Your task to perform on an android device: turn vacation reply on in the gmail app Image 0: 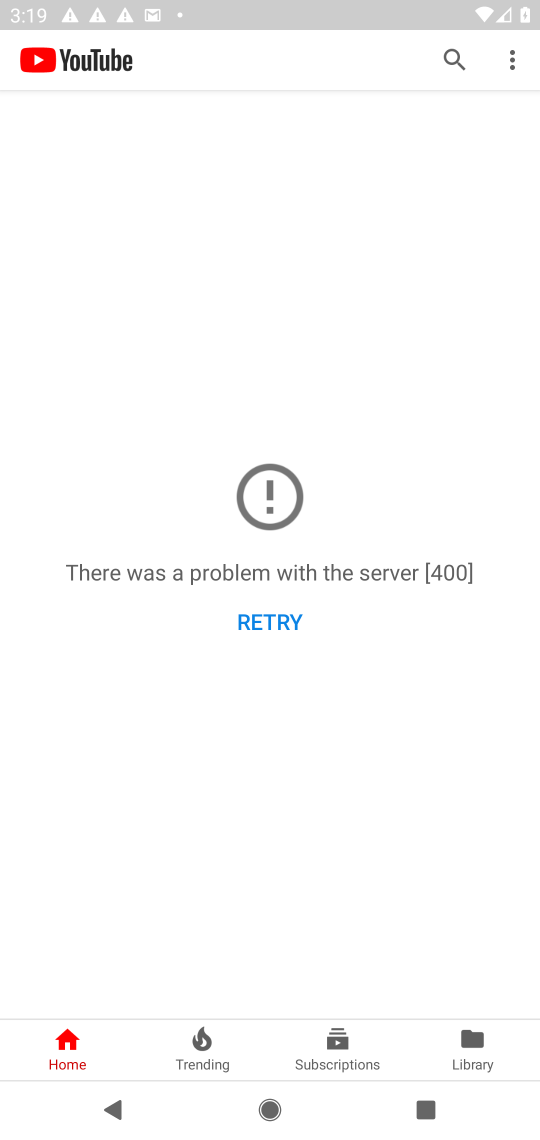
Step 0: press home button
Your task to perform on an android device: turn vacation reply on in the gmail app Image 1: 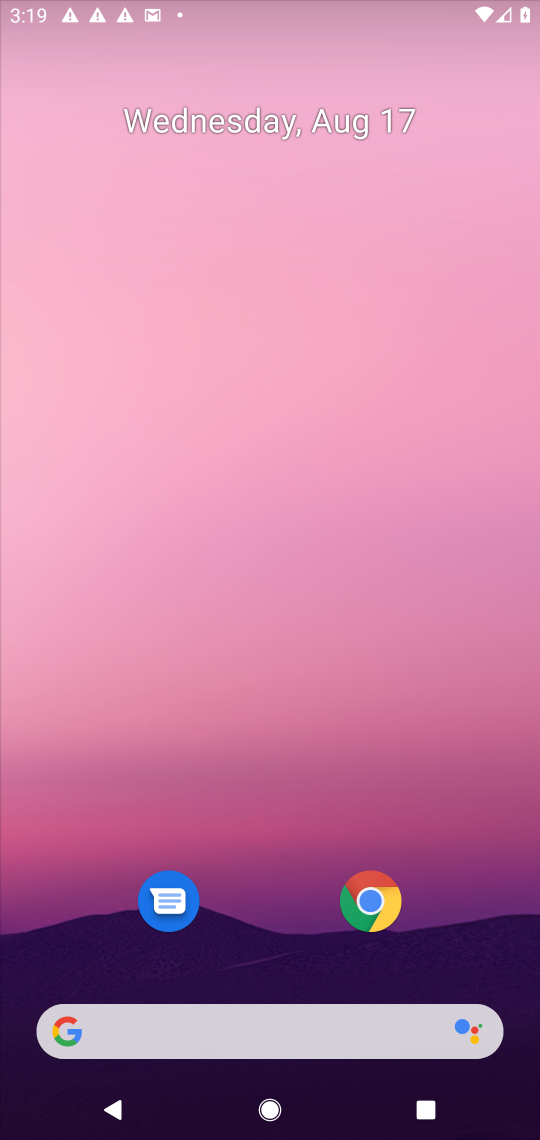
Step 1: drag from (227, 957) to (318, 449)
Your task to perform on an android device: turn vacation reply on in the gmail app Image 2: 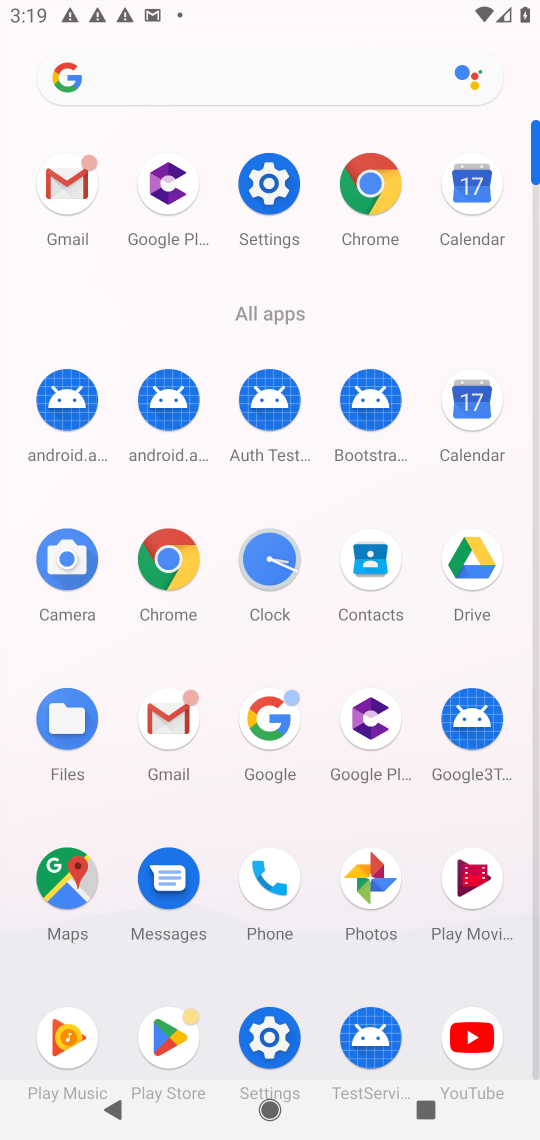
Step 2: click (170, 714)
Your task to perform on an android device: turn vacation reply on in the gmail app Image 3: 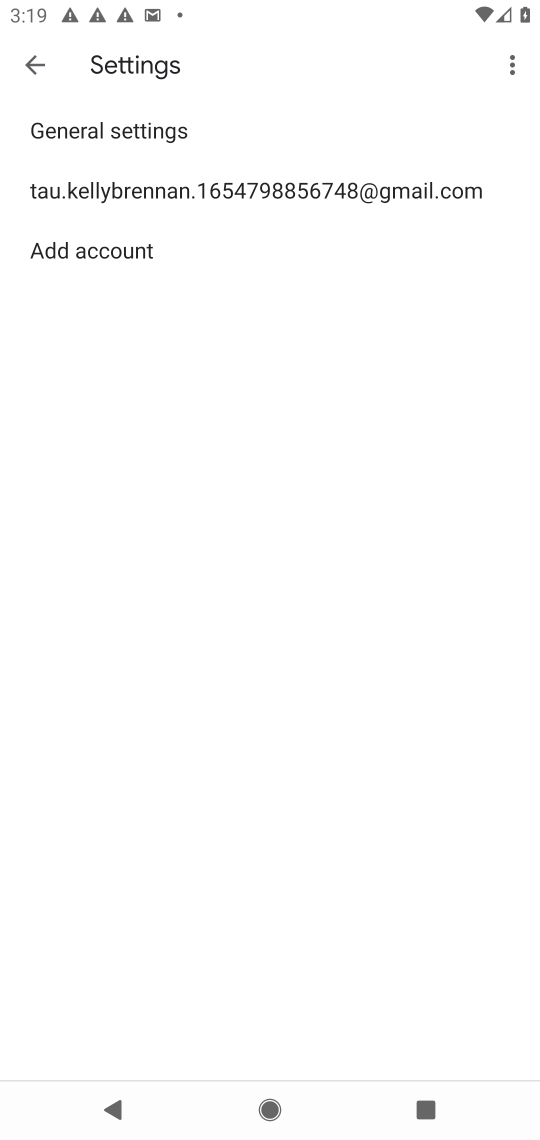
Step 3: click (34, 64)
Your task to perform on an android device: turn vacation reply on in the gmail app Image 4: 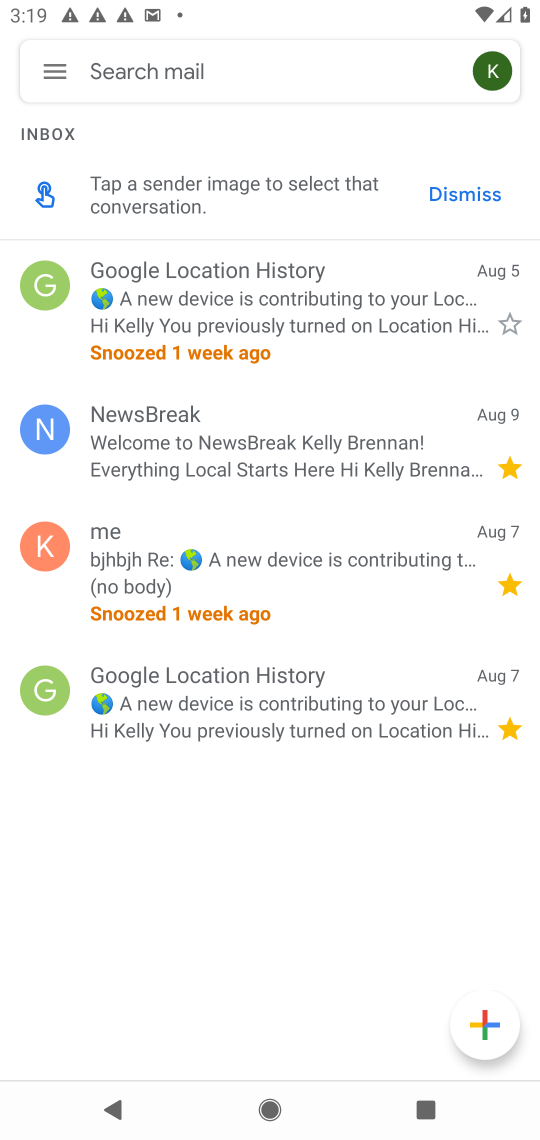
Step 4: click (45, 73)
Your task to perform on an android device: turn vacation reply on in the gmail app Image 5: 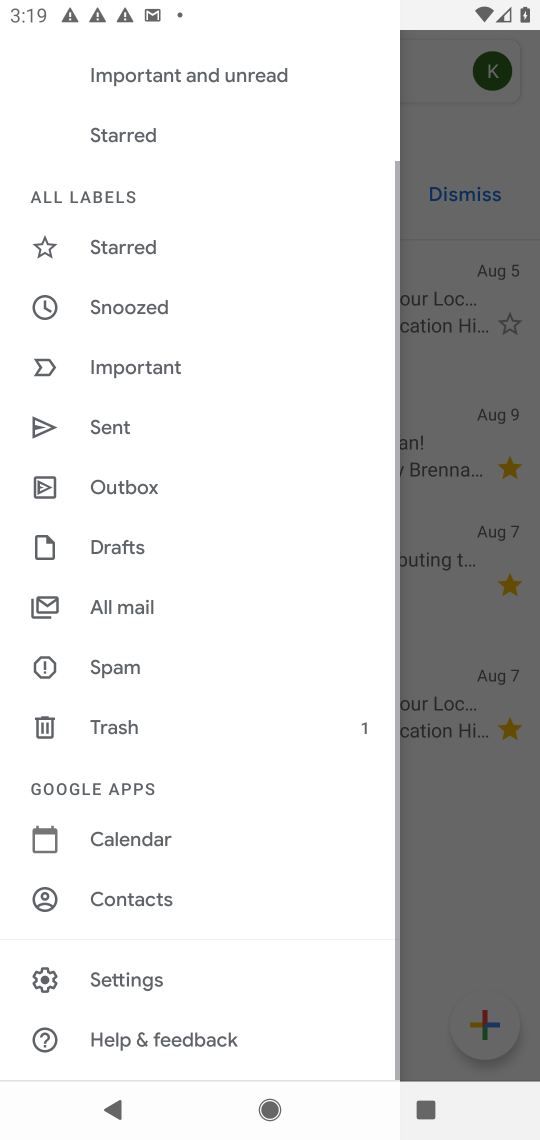
Step 5: click (140, 987)
Your task to perform on an android device: turn vacation reply on in the gmail app Image 6: 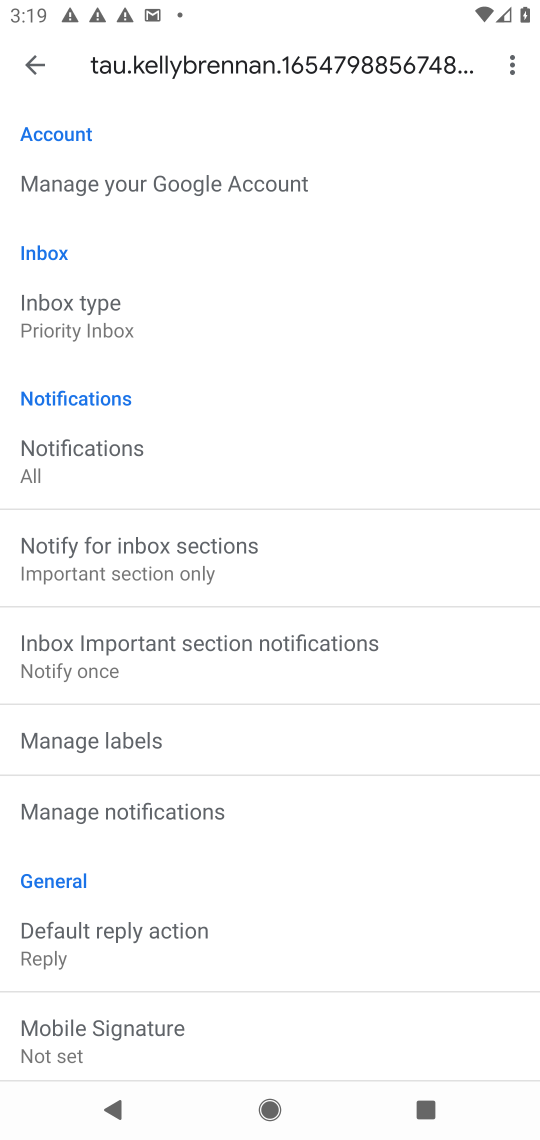
Step 6: drag from (155, 1021) to (225, 432)
Your task to perform on an android device: turn vacation reply on in the gmail app Image 7: 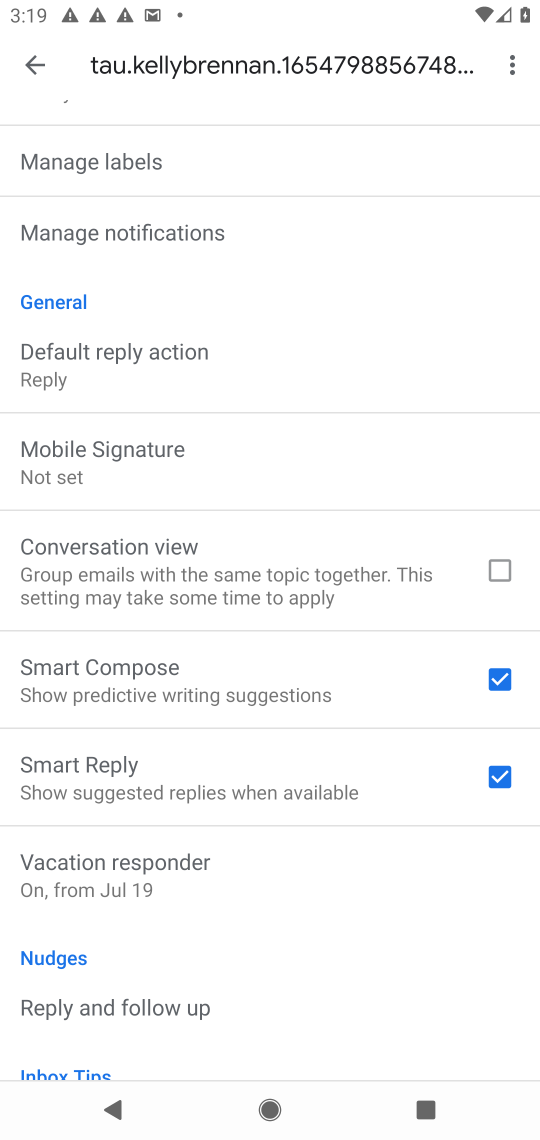
Step 7: click (146, 903)
Your task to perform on an android device: turn vacation reply on in the gmail app Image 8: 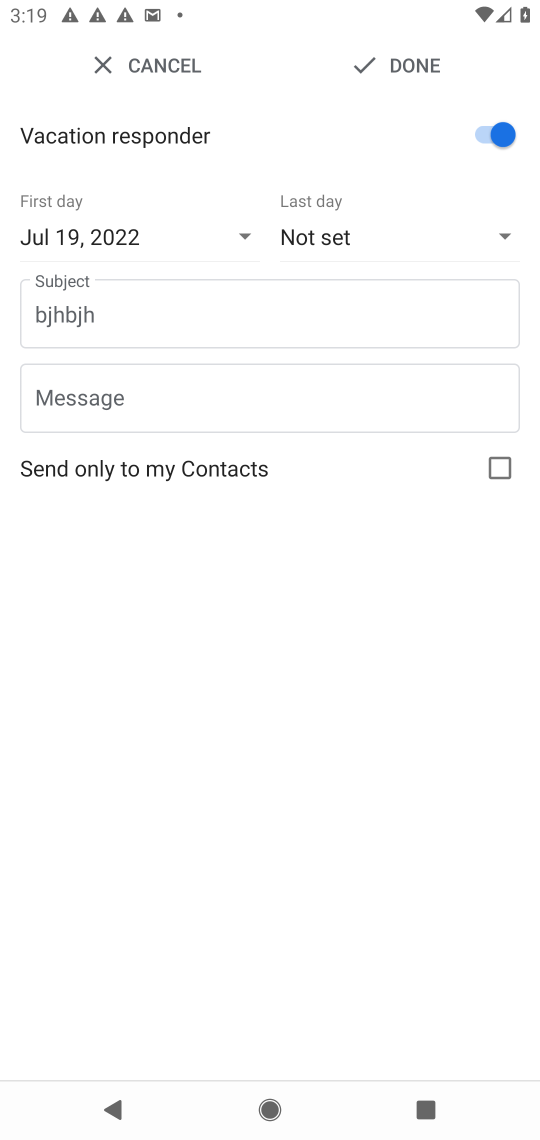
Step 8: task complete